Your task to perform on an android device: move a message to another label in the gmail app Image 0: 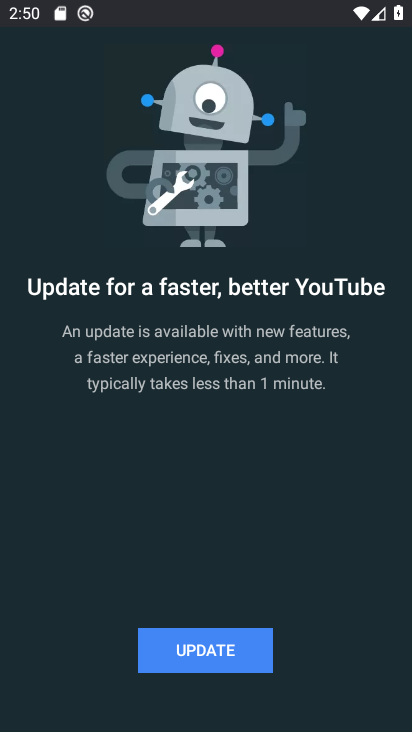
Step 0: task impossible